Your task to perform on an android device: Go to Maps Image 0: 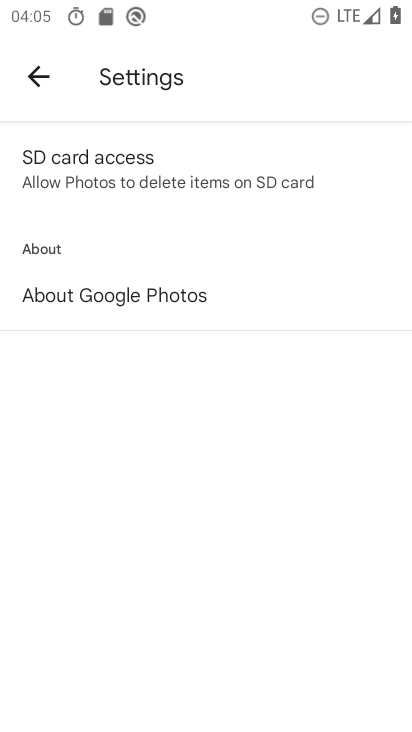
Step 0: press home button
Your task to perform on an android device: Go to Maps Image 1: 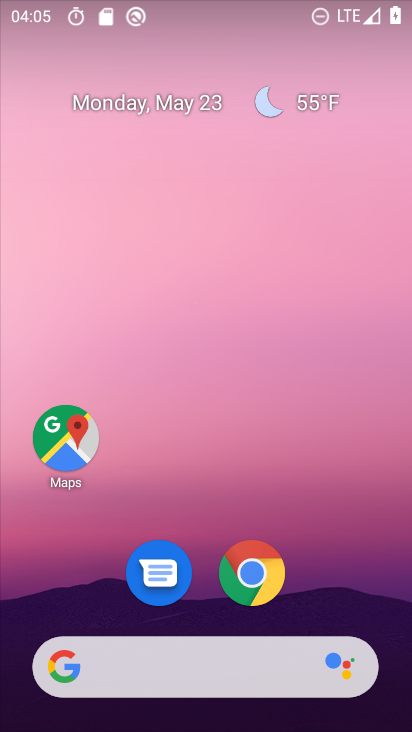
Step 1: click (63, 443)
Your task to perform on an android device: Go to Maps Image 2: 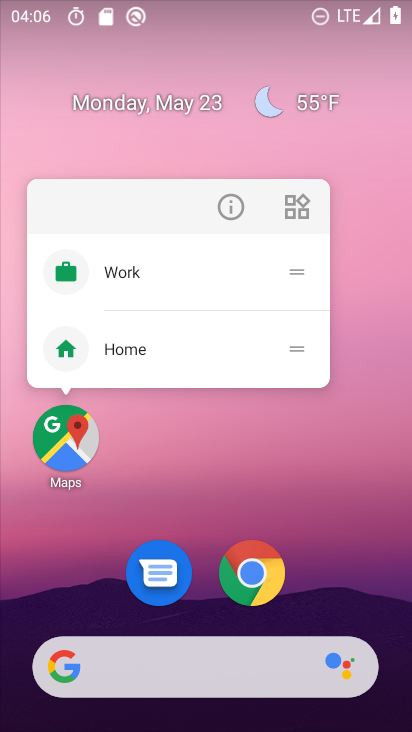
Step 2: click (63, 443)
Your task to perform on an android device: Go to Maps Image 3: 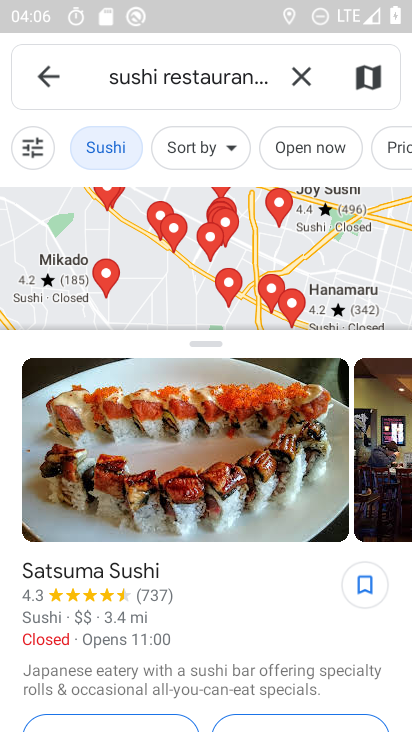
Step 3: task complete